Your task to perform on an android device: toggle notifications settings in the gmail app Image 0: 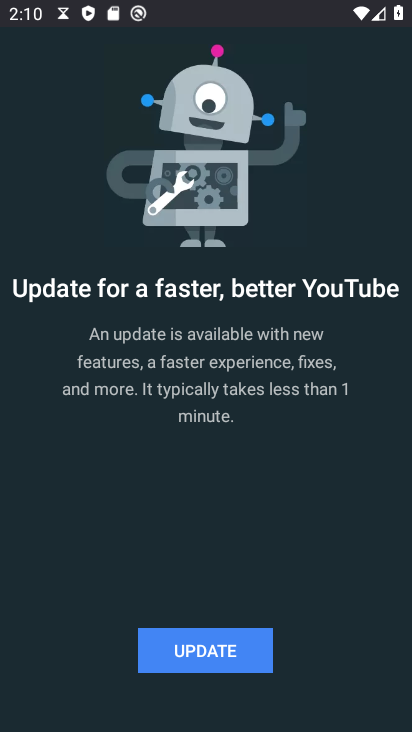
Step 0: press back button
Your task to perform on an android device: toggle notifications settings in the gmail app Image 1: 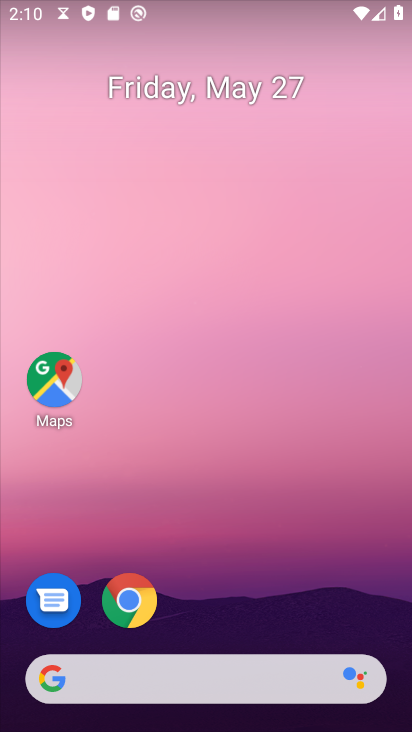
Step 1: drag from (221, 472) to (206, 47)
Your task to perform on an android device: toggle notifications settings in the gmail app Image 2: 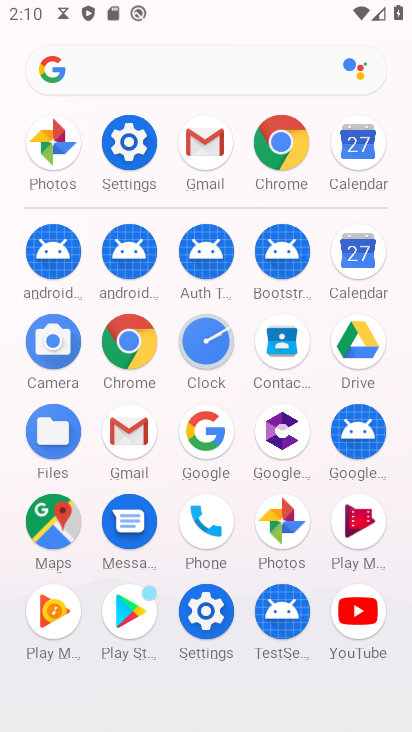
Step 2: drag from (0, 574) to (18, 273)
Your task to perform on an android device: toggle notifications settings in the gmail app Image 3: 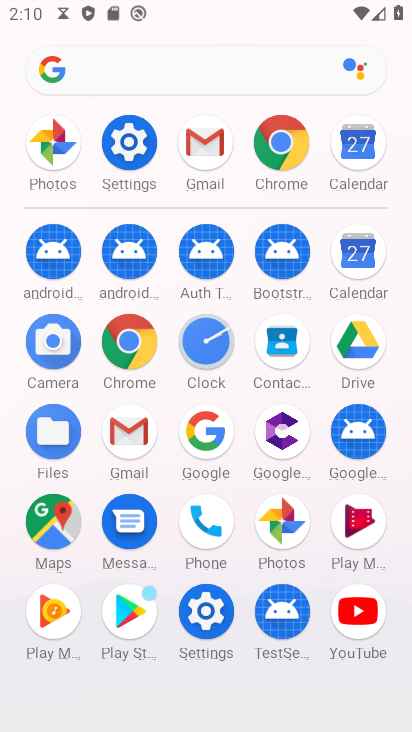
Step 3: click (127, 421)
Your task to perform on an android device: toggle notifications settings in the gmail app Image 4: 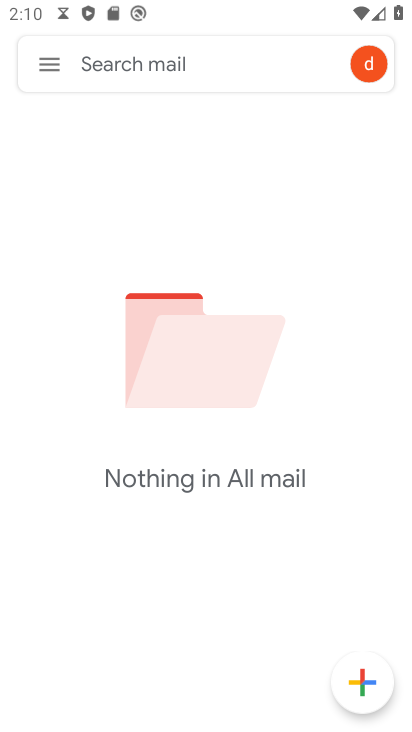
Step 4: click (43, 57)
Your task to perform on an android device: toggle notifications settings in the gmail app Image 5: 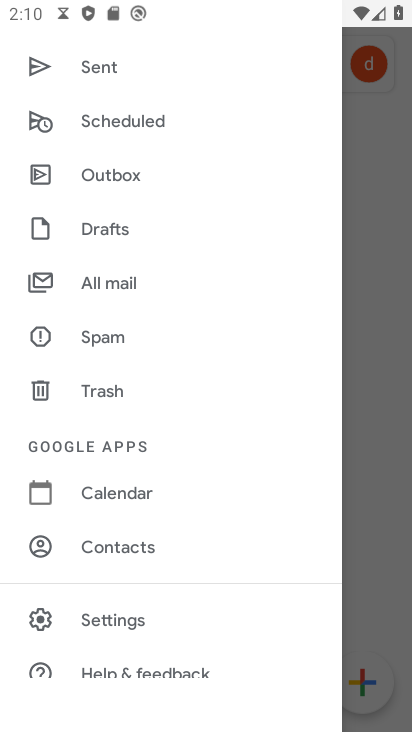
Step 5: click (109, 612)
Your task to perform on an android device: toggle notifications settings in the gmail app Image 6: 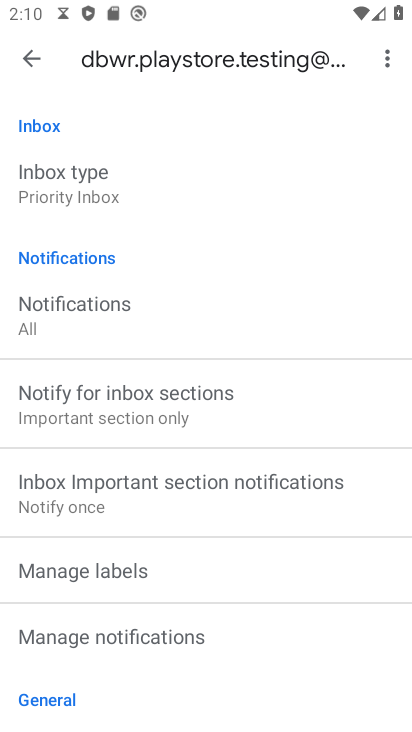
Step 6: click (118, 623)
Your task to perform on an android device: toggle notifications settings in the gmail app Image 7: 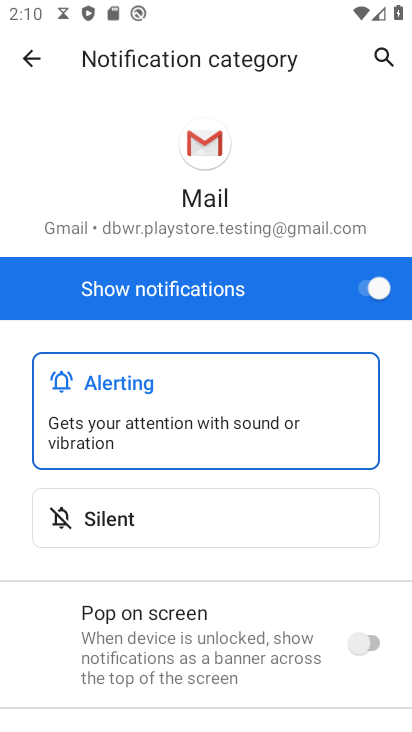
Step 7: click (373, 287)
Your task to perform on an android device: toggle notifications settings in the gmail app Image 8: 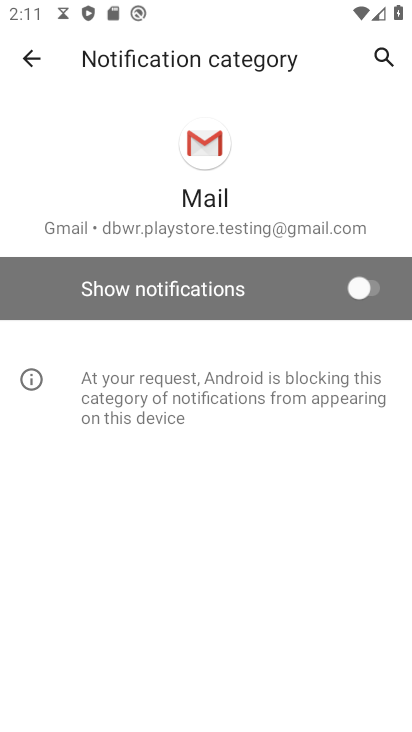
Step 8: task complete